Your task to perform on an android device: star an email in the gmail app Image 0: 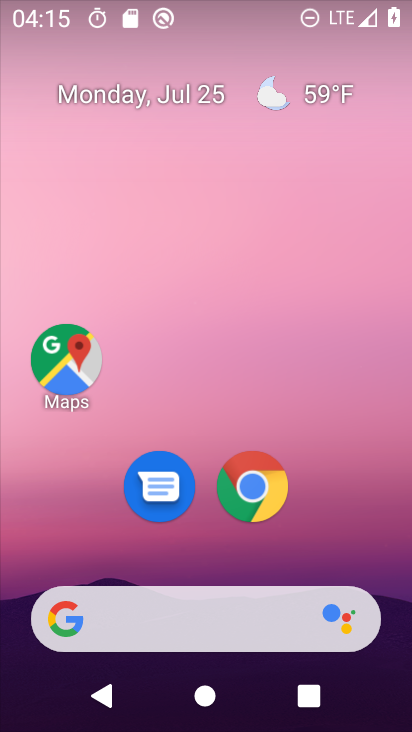
Step 0: drag from (181, 565) to (292, 8)
Your task to perform on an android device: star an email in the gmail app Image 1: 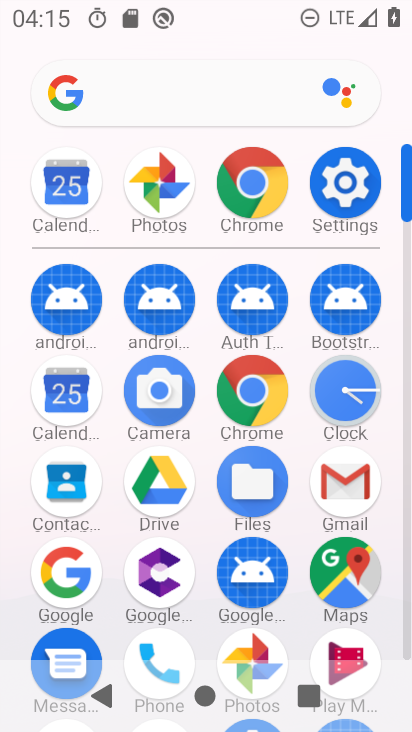
Step 1: click (351, 468)
Your task to perform on an android device: star an email in the gmail app Image 2: 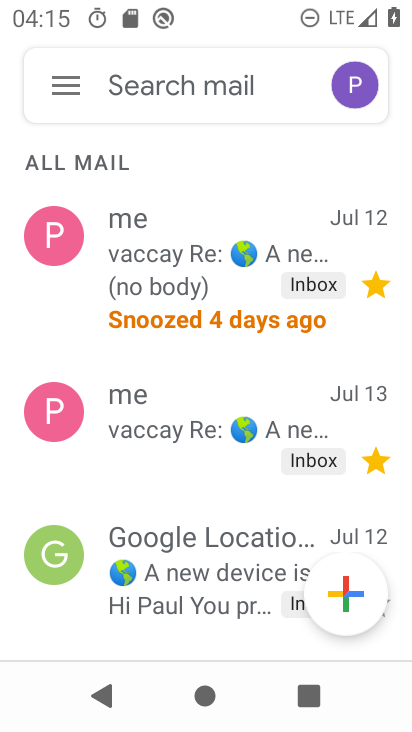
Step 2: drag from (236, 483) to (301, 159)
Your task to perform on an android device: star an email in the gmail app Image 3: 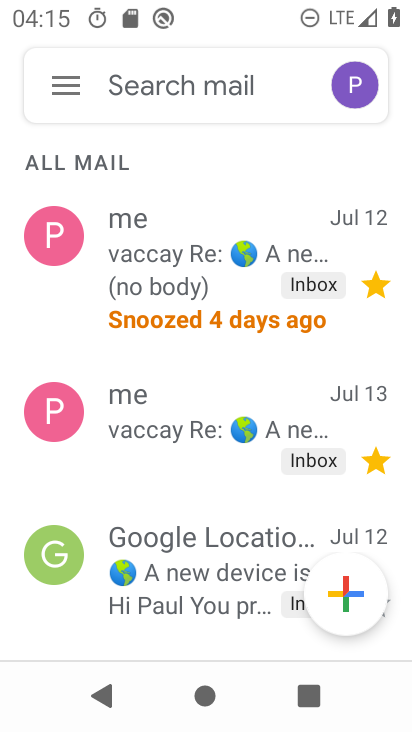
Step 3: drag from (254, 317) to (252, 627)
Your task to perform on an android device: star an email in the gmail app Image 4: 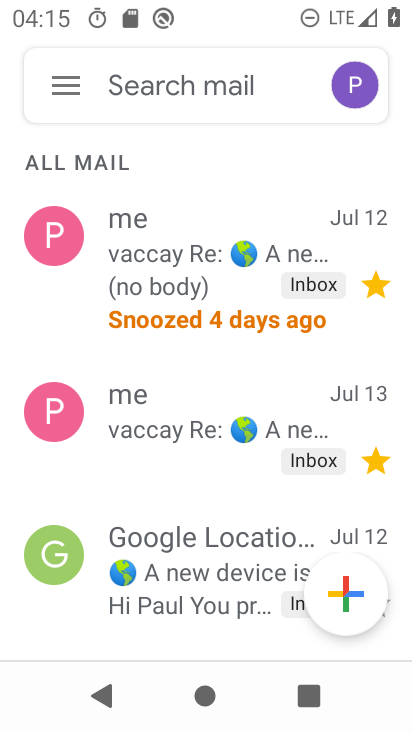
Step 4: click (223, 554)
Your task to perform on an android device: star an email in the gmail app Image 5: 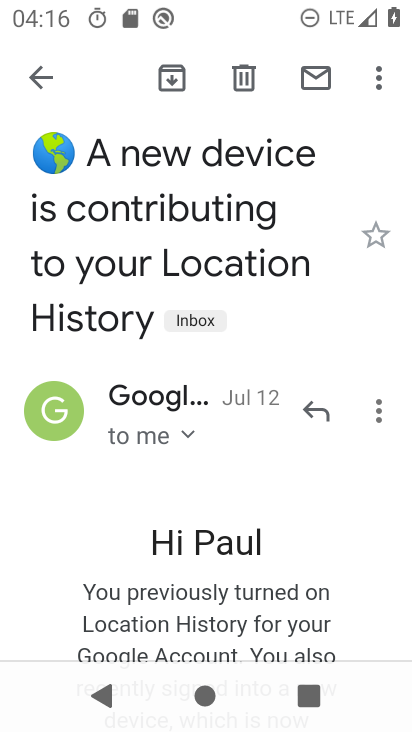
Step 5: click (381, 239)
Your task to perform on an android device: star an email in the gmail app Image 6: 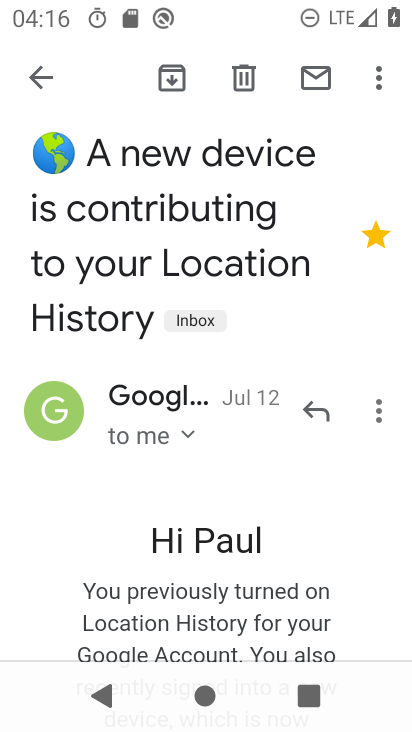
Step 6: task complete